Your task to perform on an android device: turn off data saver in the chrome app Image 0: 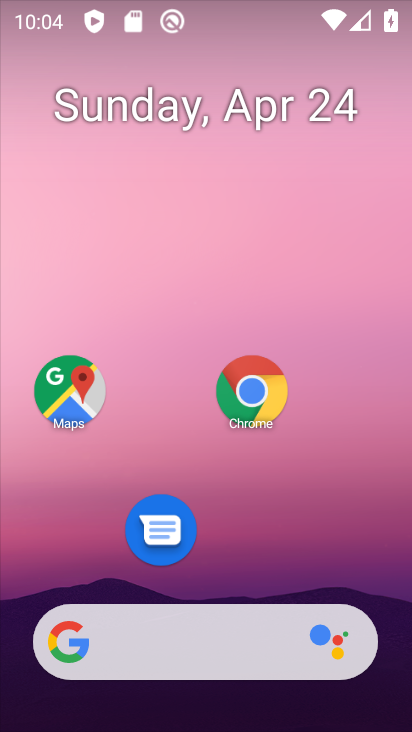
Step 0: click (249, 388)
Your task to perform on an android device: turn off data saver in the chrome app Image 1: 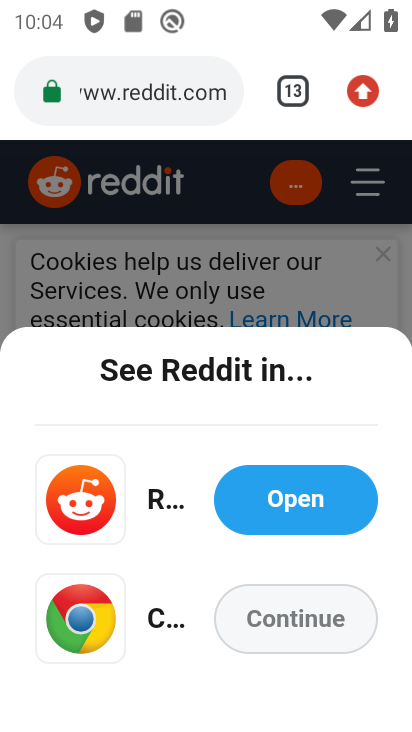
Step 1: click (359, 102)
Your task to perform on an android device: turn off data saver in the chrome app Image 2: 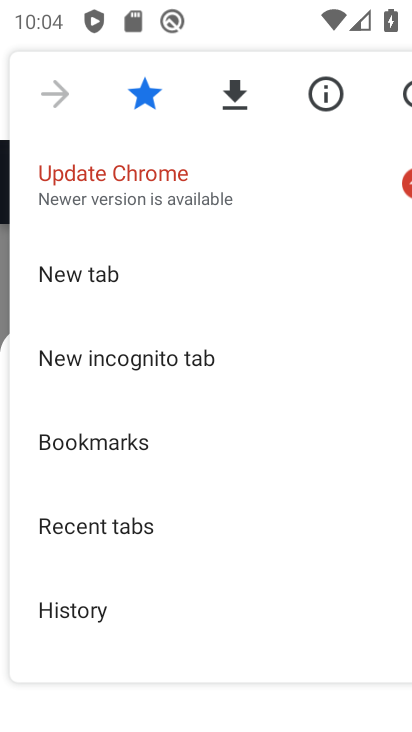
Step 2: drag from (140, 553) to (227, 110)
Your task to perform on an android device: turn off data saver in the chrome app Image 3: 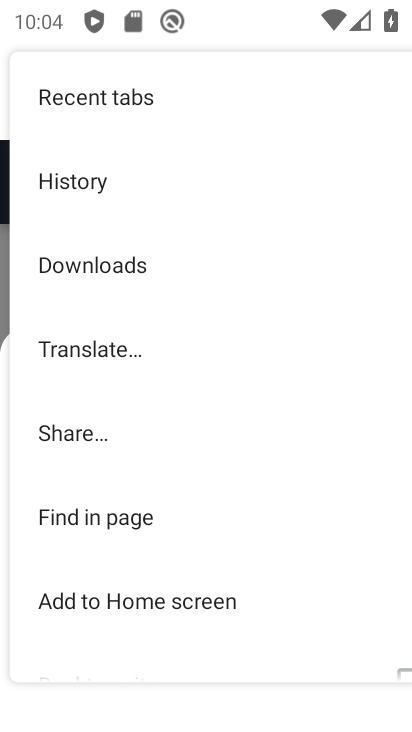
Step 3: drag from (106, 672) to (171, 302)
Your task to perform on an android device: turn off data saver in the chrome app Image 4: 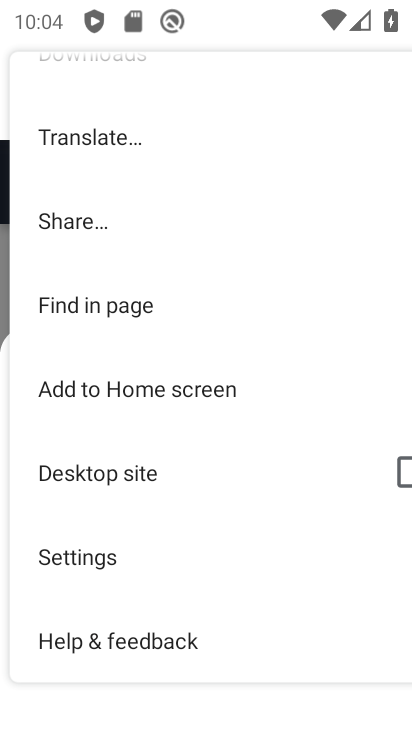
Step 4: click (122, 567)
Your task to perform on an android device: turn off data saver in the chrome app Image 5: 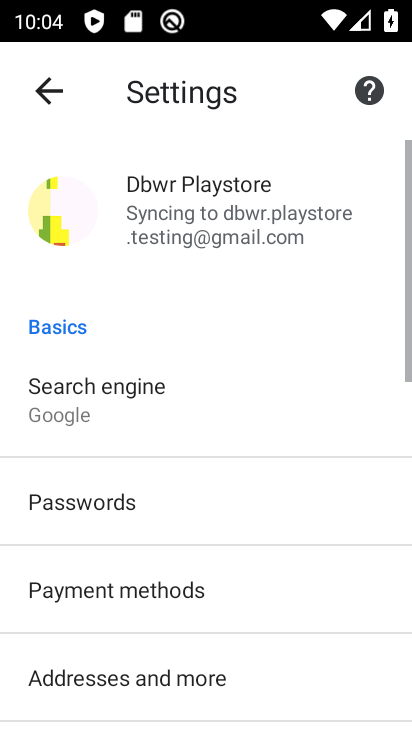
Step 5: drag from (122, 567) to (276, 121)
Your task to perform on an android device: turn off data saver in the chrome app Image 6: 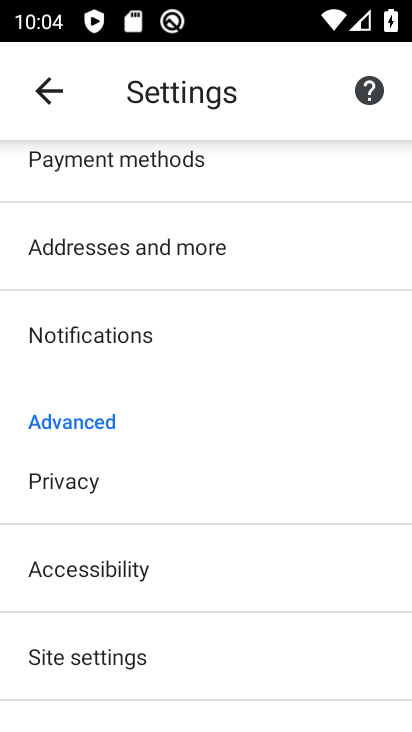
Step 6: drag from (106, 583) to (218, 216)
Your task to perform on an android device: turn off data saver in the chrome app Image 7: 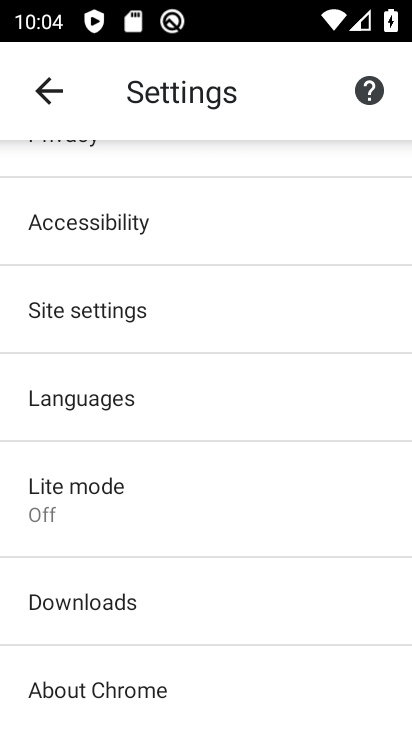
Step 7: click (177, 528)
Your task to perform on an android device: turn off data saver in the chrome app Image 8: 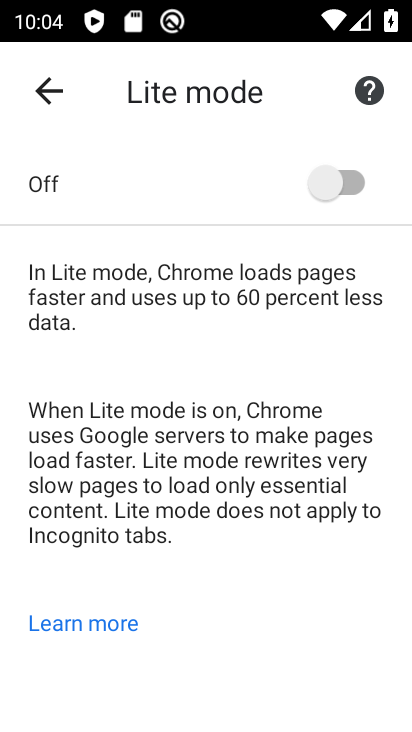
Step 8: task complete